Your task to perform on an android device: check google app version Image 0: 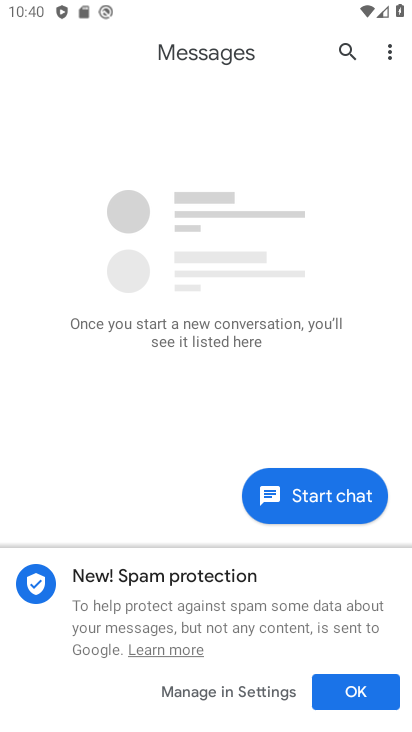
Step 0: press back button
Your task to perform on an android device: check google app version Image 1: 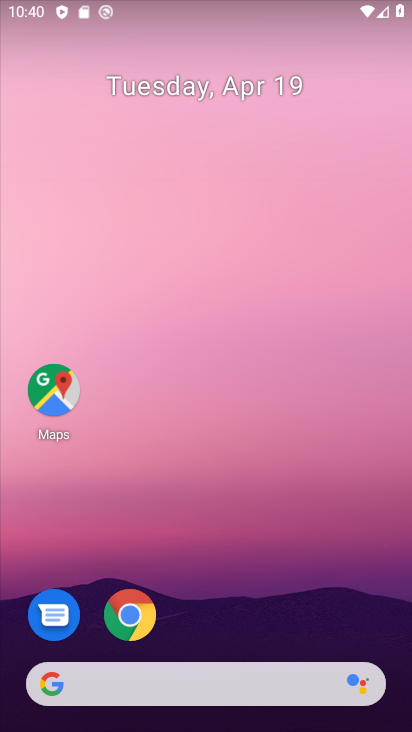
Step 1: click (215, 447)
Your task to perform on an android device: check google app version Image 2: 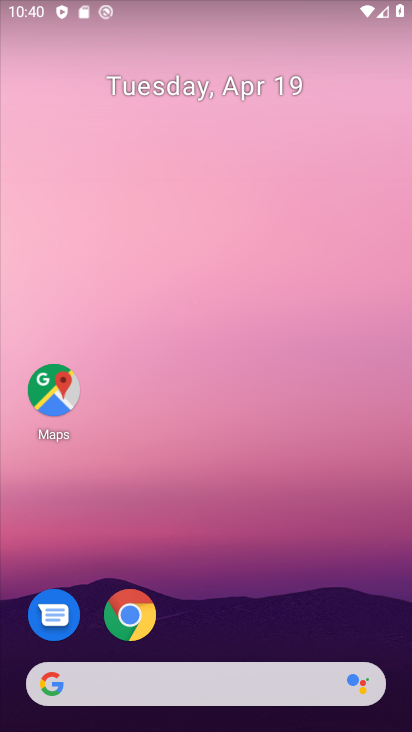
Step 2: drag from (181, 619) to (135, 280)
Your task to perform on an android device: check google app version Image 3: 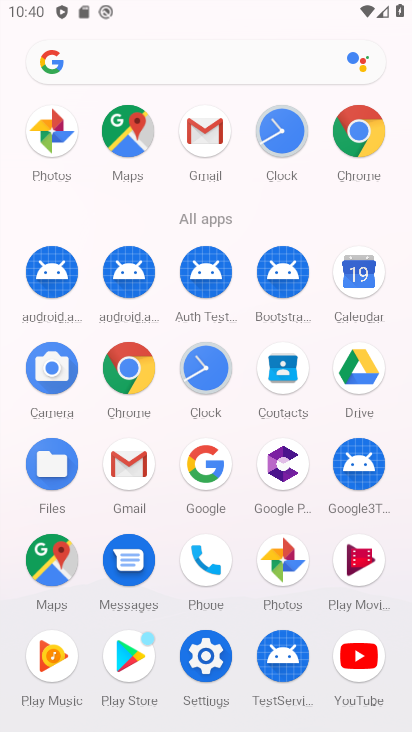
Step 3: click (211, 460)
Your task to perform on an android device: check google app version Image 4: 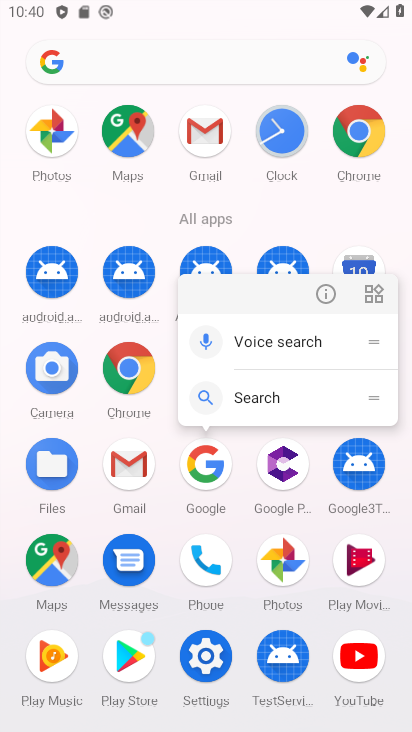
Step 4: click (328, 288)
Your task to perform on an android device: check google app version Image 5: 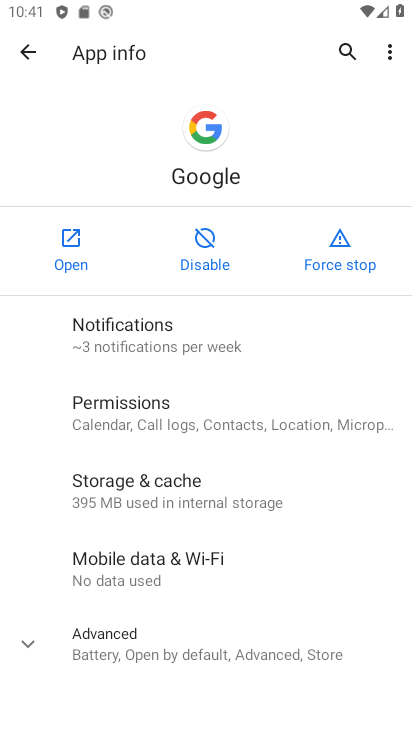
Step 5: click (127, 641)
Your task to perform on an android device: check google app version Image 6: 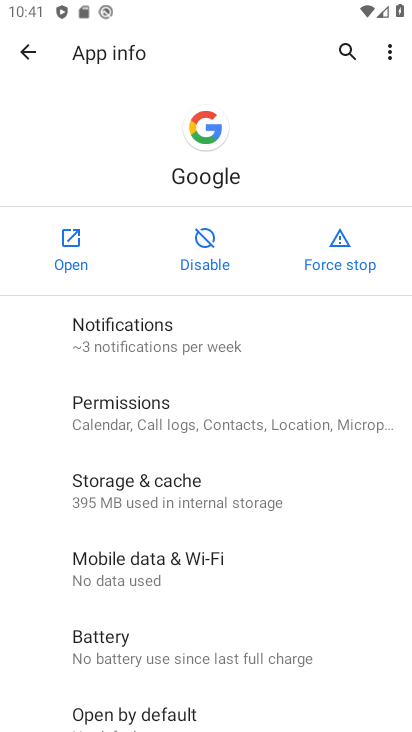
Step 6: task complete